Your task to perform on an android device: toggle pop-ups in chrome Image 0: 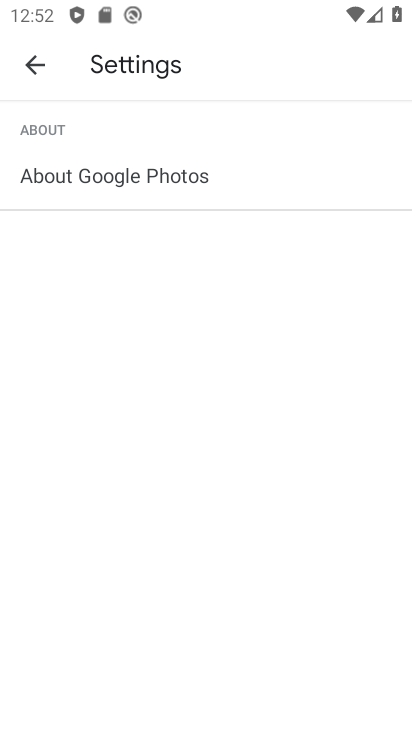
Step 0: press home button
Your task to perform on an android device: toggle pop-ups in chrome Image 1: 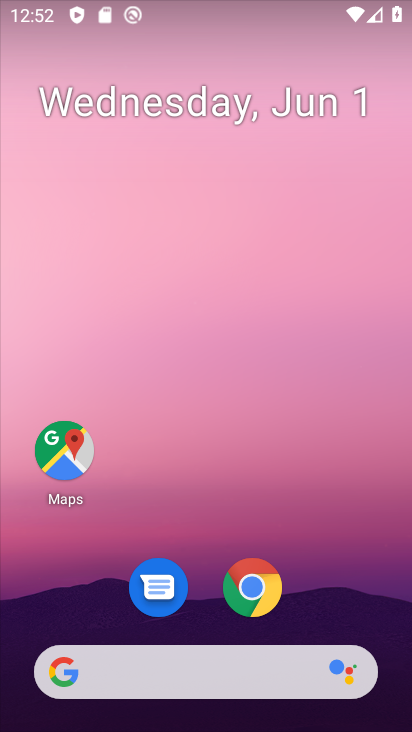
Step 1: drag from (387, 607) to (299, 132)
Your task to perform on an android device: toggle pop-ups in chrome Image 2: 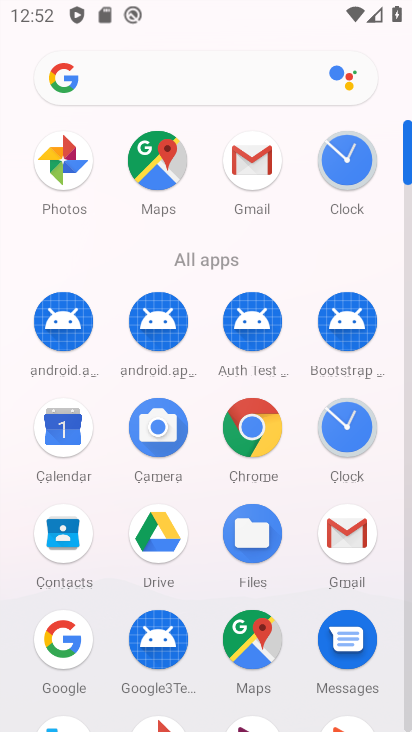
Step 2: click (272, 411)
Your task to perform on an android device: toggle pop-ups in chrome Image 3: 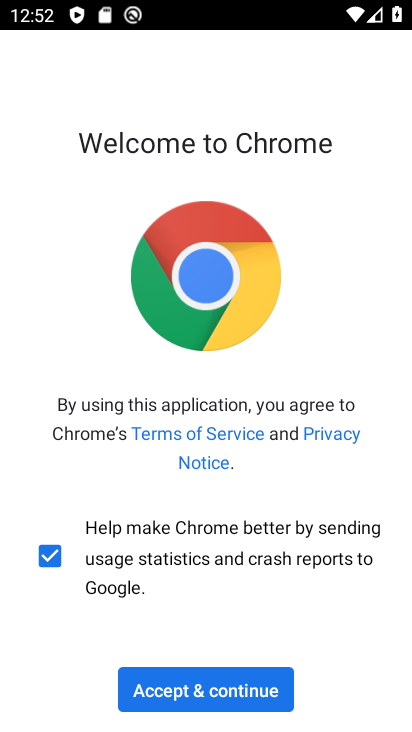
Step 3: click (194, 694)
Your task to perform on an android device: toggle pop-ups in chrome Image 4: 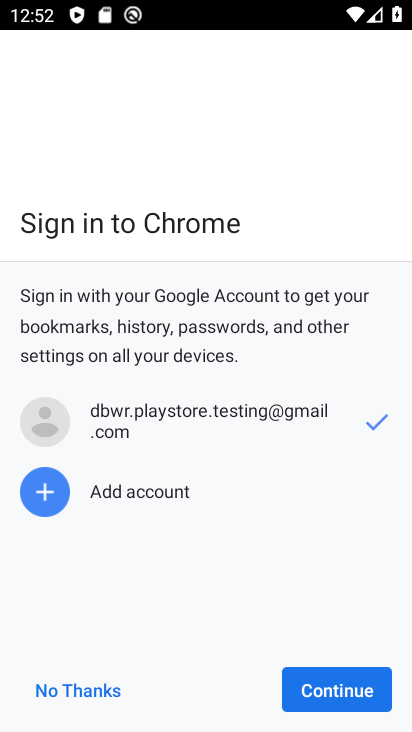
Step 4: click (358, 687)
Your task to perform on an android device: toggle pop-ups in chrome Image 5: 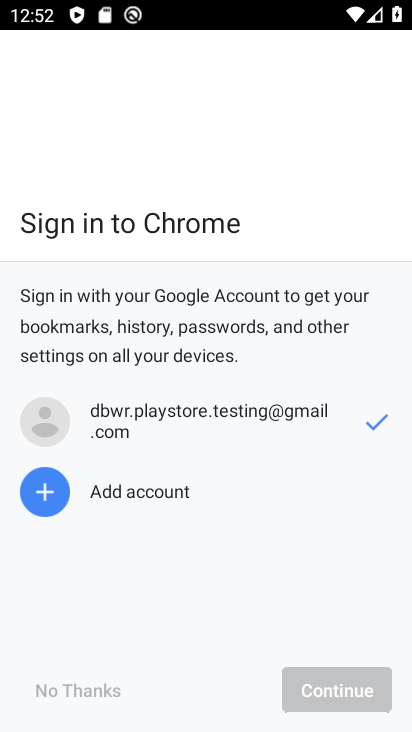
Step 5: click (358, 687)
Your task to perform on an android device: toggle pop-ups in chrome Image 6: 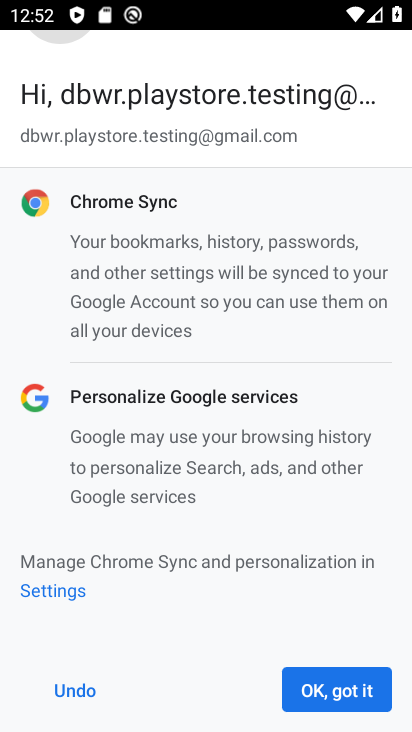
Step 6: click (358, 687)
Your task to perform on an android device: toggle pop-ups in chrome Image 7: 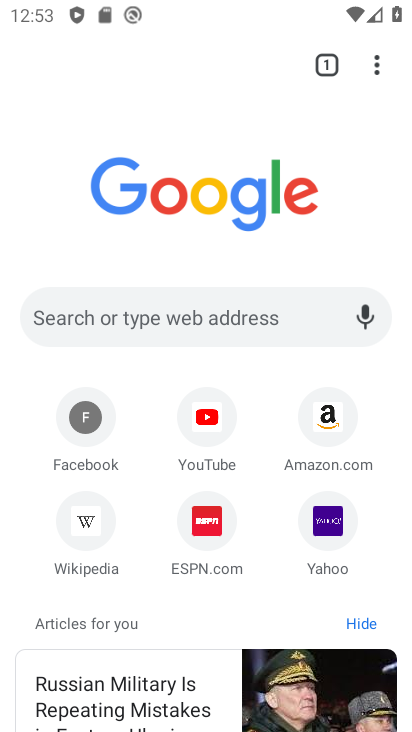
Step 7: drag from (371, 59) to (181, 543)
Your task to perform on an android device: toggle pop-ups in chrome Image 8: 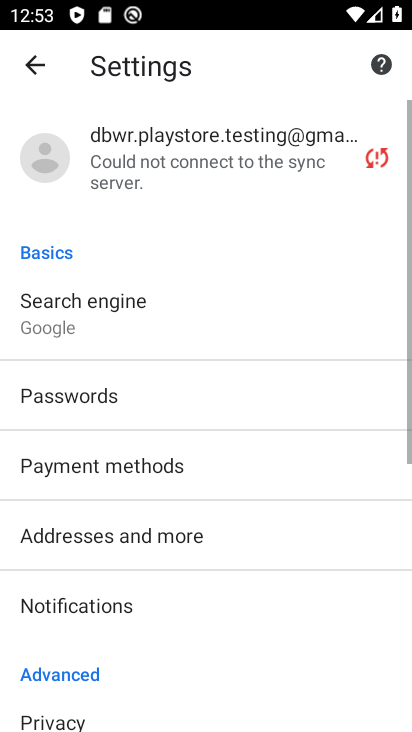
Step 8: drag from (171, 618) to (160, 119)
Your task to perform on an android device: toggle pop-ups in chrome Image 9: 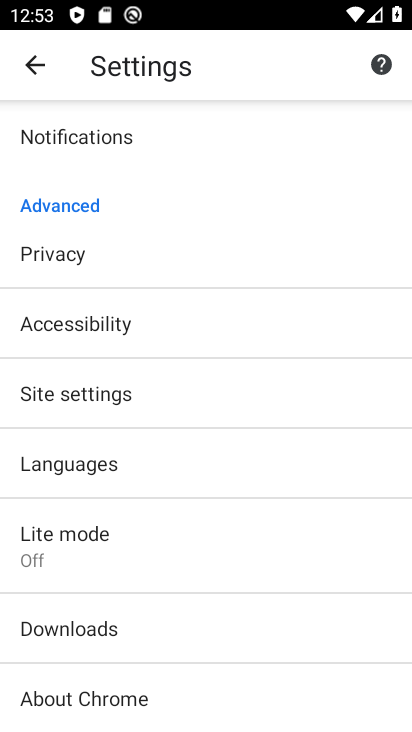
Step 9: click (170, 393)
Your task to perform on an android device: toggle pop-ups in chrome Image 10: 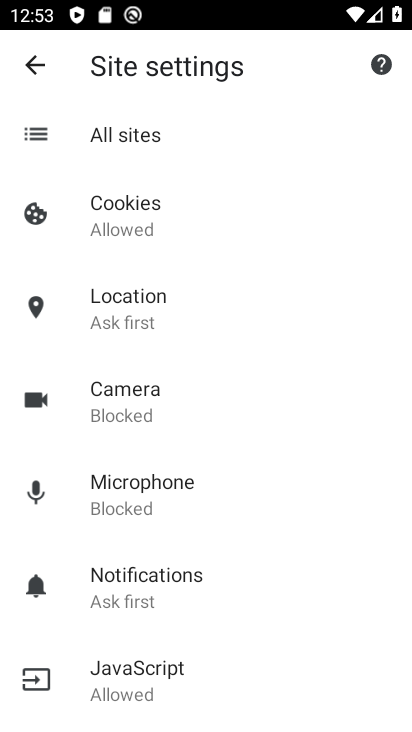
Step 10: drag from (177, 648) to (159, 177)
Your task to perform on an android device: toggle pop-ups in chrome Image 11: 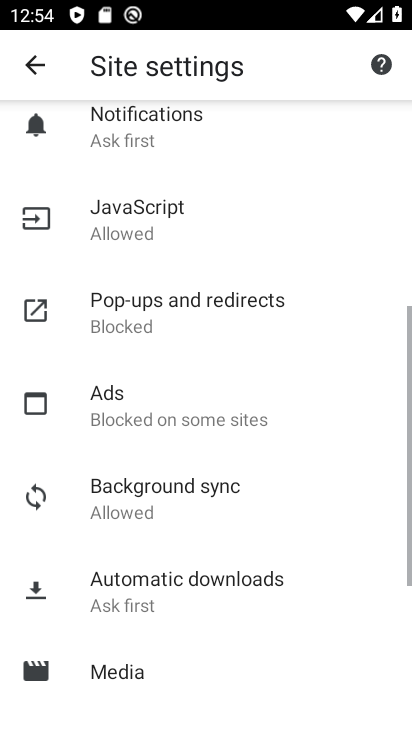
Step 11: click (117, 320)
Your task to perform on an android device: toggle pop-ups in chrome Image 12: 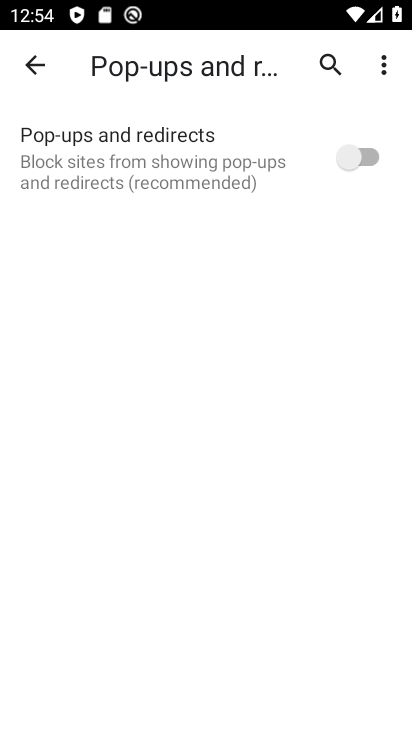
Step 12: click (131, 149)
Your task to perform on an android device: toggle pop-ups in chrome Image 13: 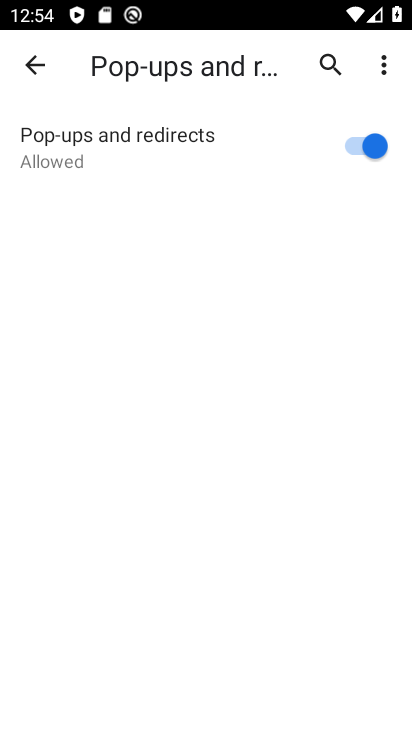
Step 13: task complete